Your task to perform on an android device: Show me popular games on the Play Store Image 0: 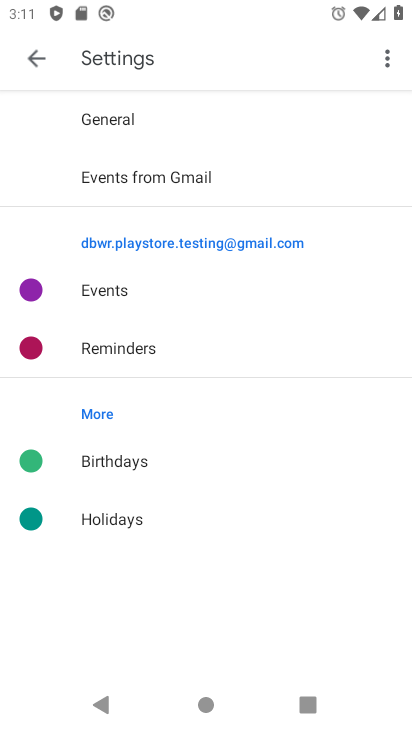
Step 0: press home button
Your task to perform on an android device: Show me popular games on the Play Store Image 1: 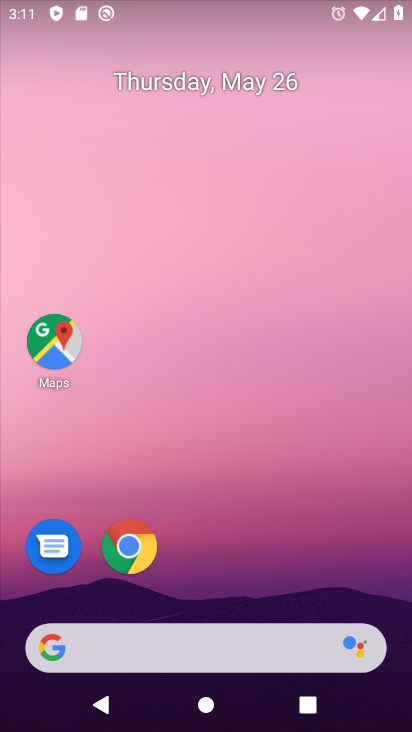
Step 1: drag from (386, 698) to (373, 108)
Your task to perform on an android device: Show me popular games on the Play Store Image 2: 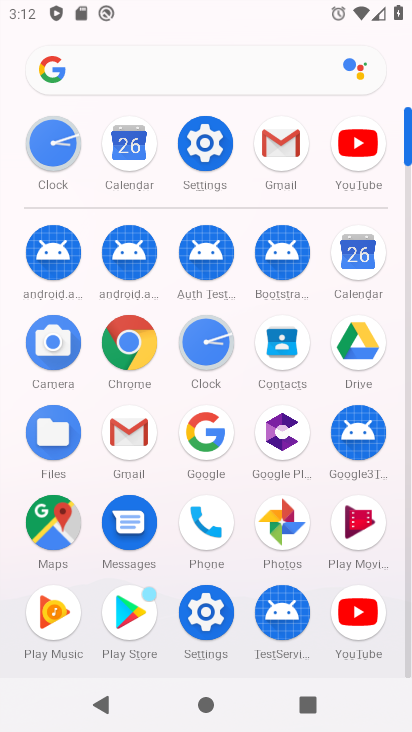
Step 2: click (118, 621)
Your task to perform on an android device: Show me popular games on the Play Store Image 3: 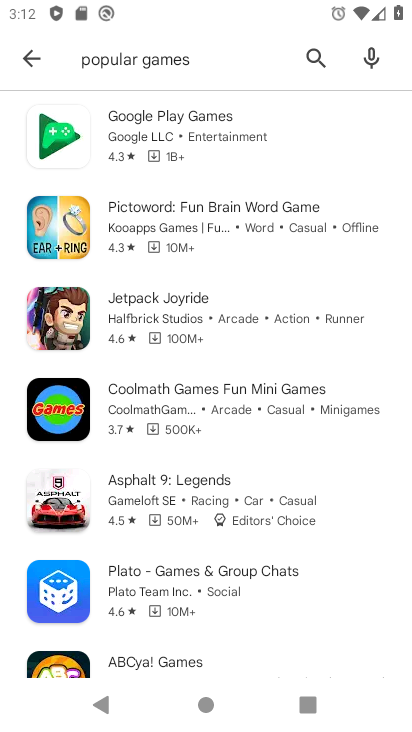
Step 3: task complete